Your task to perform on an android device: Go to wifi settings Image 0: 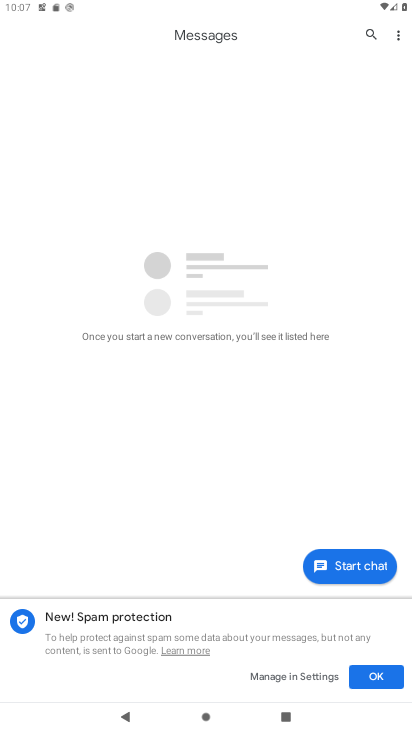
Step 0: press home button
Your task to perform on an android device: Go to wifi settings Image 1: 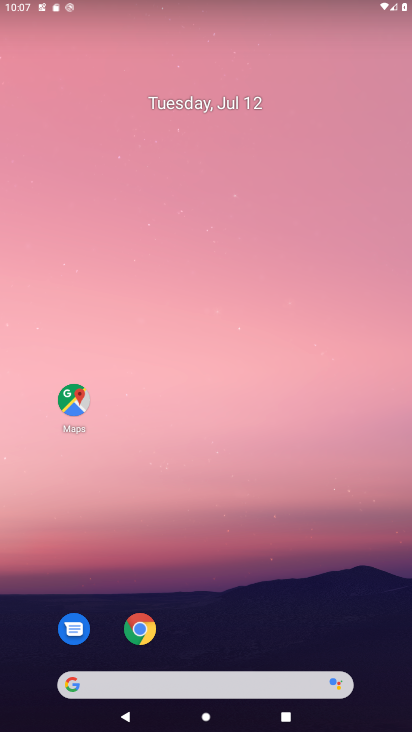
Step 1: drag from (191, 677) to (301, 36)
Your task to perform on an android device: Go to wifi settings Image 2: 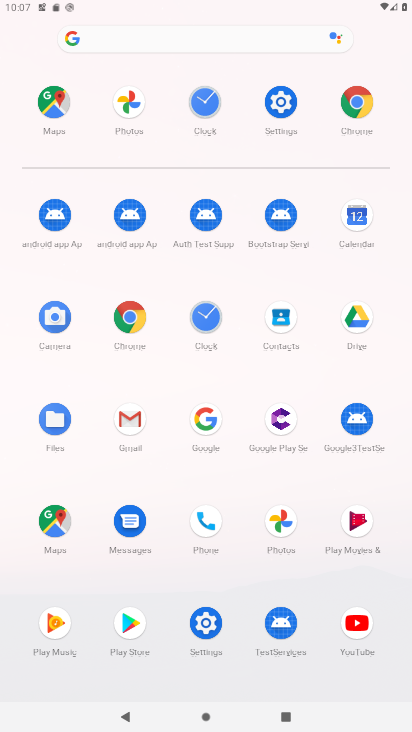
Step 2: click (282, 101)
Your task to perform on an android device: Go to wifi settings Image 3: 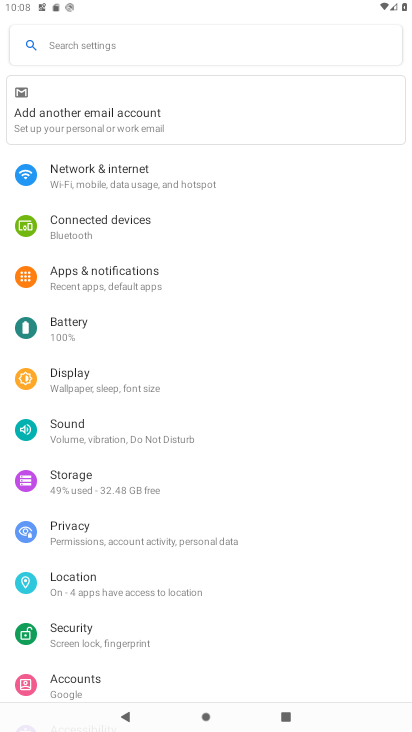
Step 3: click (154, 173)
Your task to perform on an android device: Go to wifi settings Image 4: 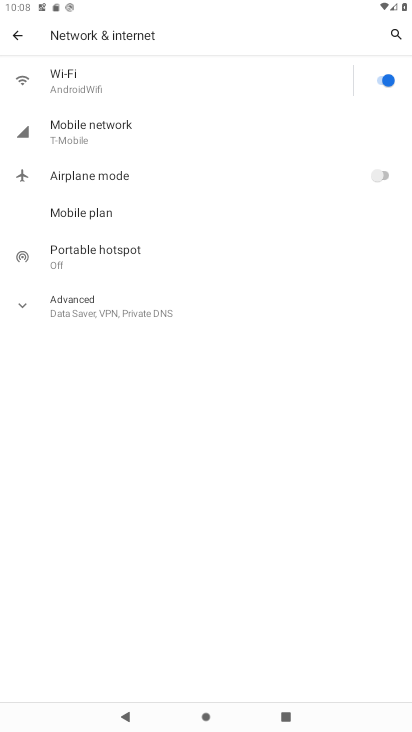
Step 4: task complete